Your task to perform on an android device: uninstall "Facebook" Image 0: 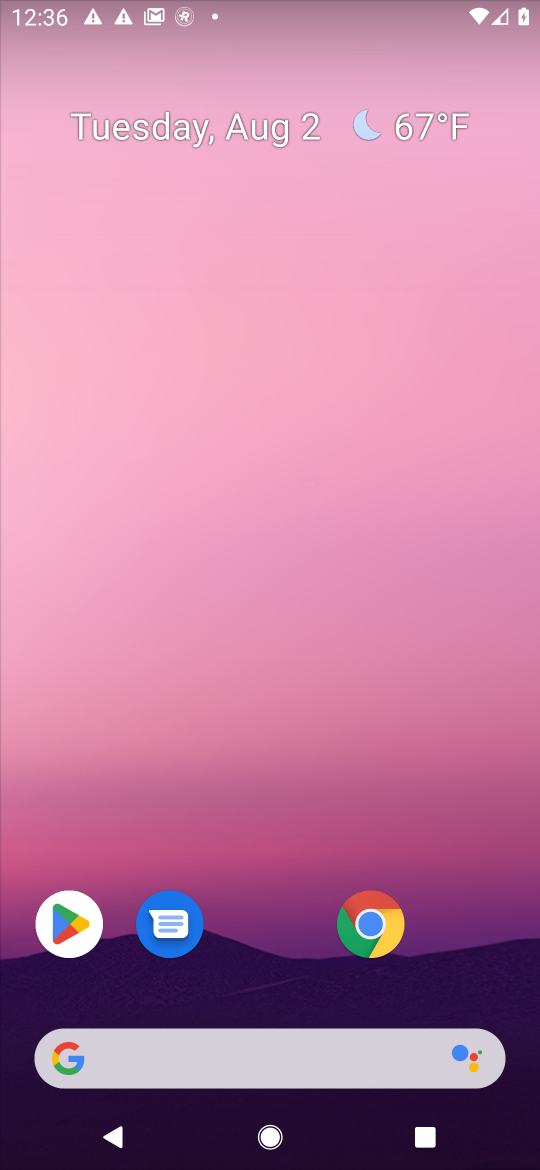
Step 0: press home button
Your task to perform on an android device: uninstall "Facebook" Image 1: 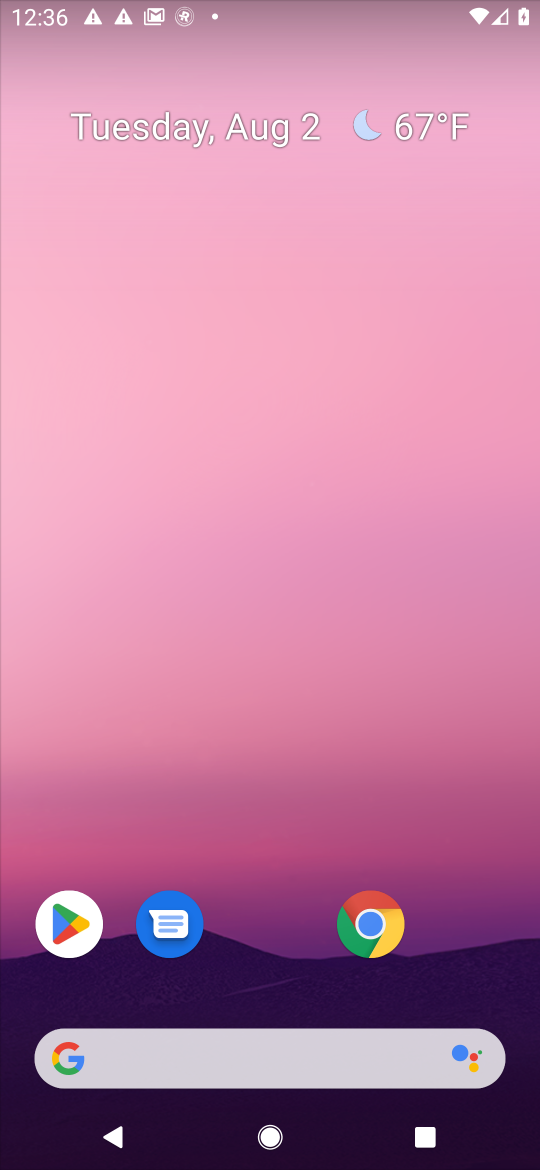
Step 1: drag from (275, 1001) to (345, 184)
Your task to perform on an android device: uninstall "Facebook" Image 2: 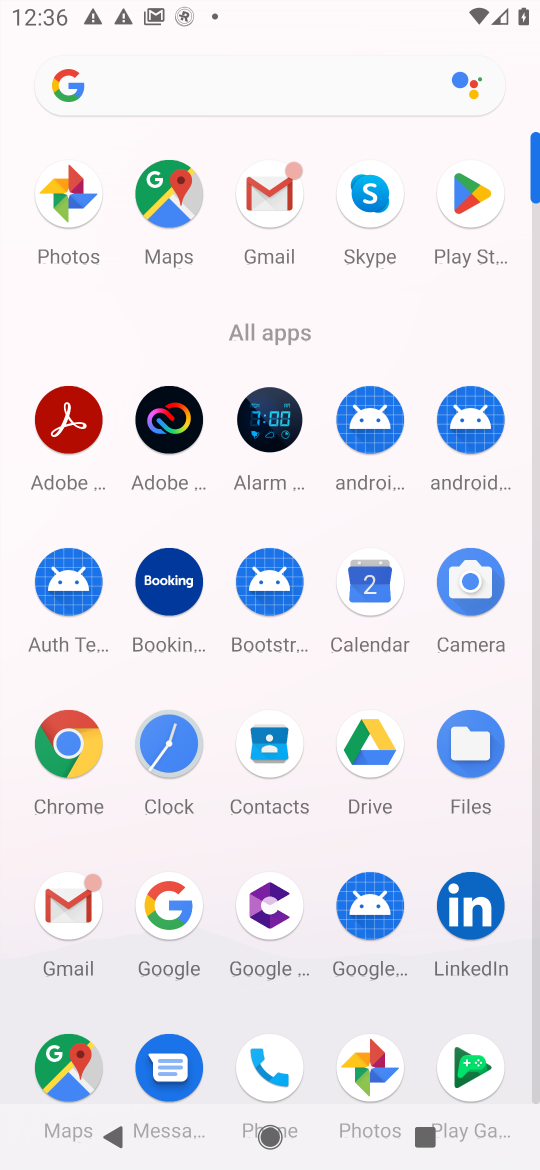
Step 2: click (462, 184)
Your task to perform on an android device: uninstall "Facebook" Image 3: 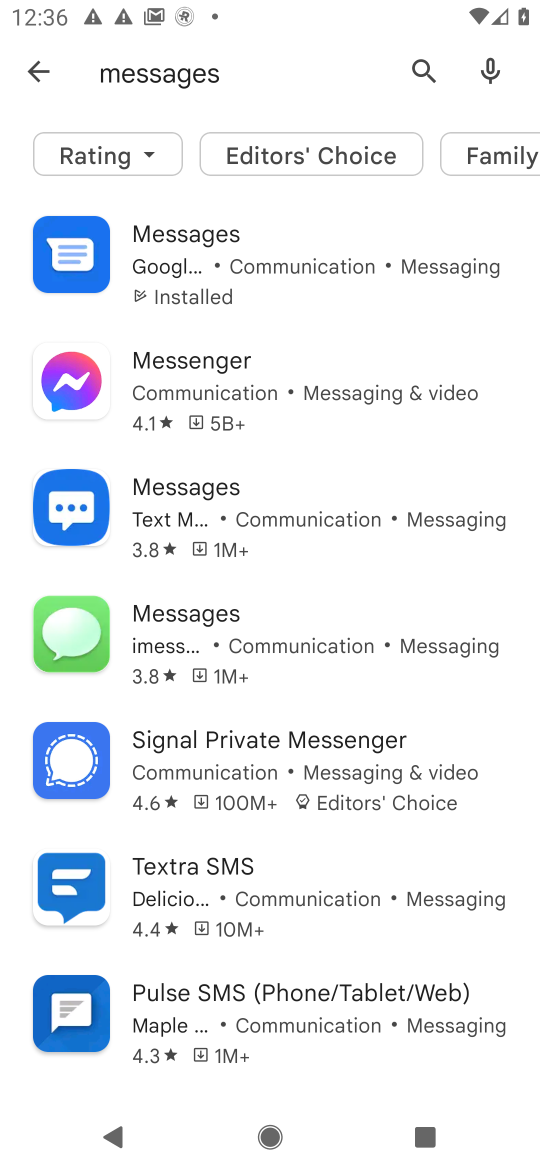
Step 3: click (419, 63)
Your task to perform on an android device: uninstall "Facebook" Image 4: 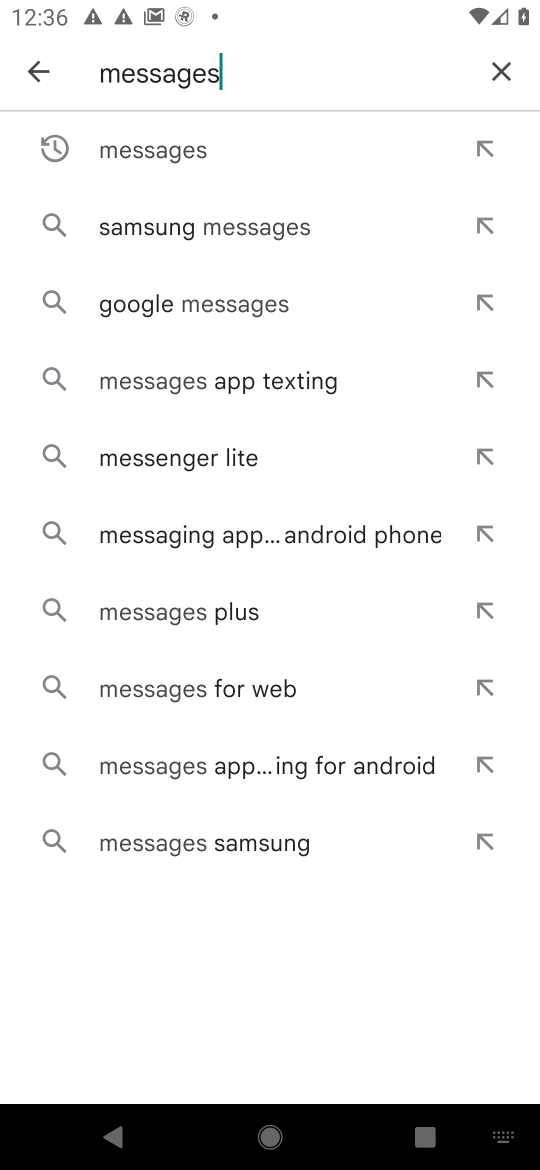
Step 4: click (498, 61)
Your task to perform on an android device: uninstall "Facebook" Image 5: 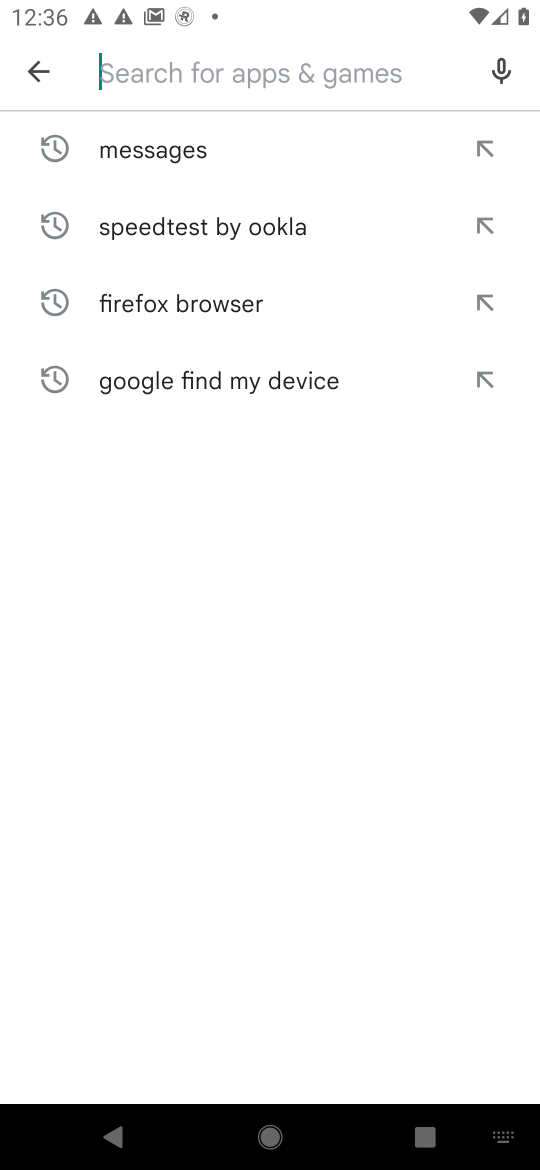
Step 5: type "Facebook"
Your task to perform on an android device: uninstall "Facebook" Image 6: 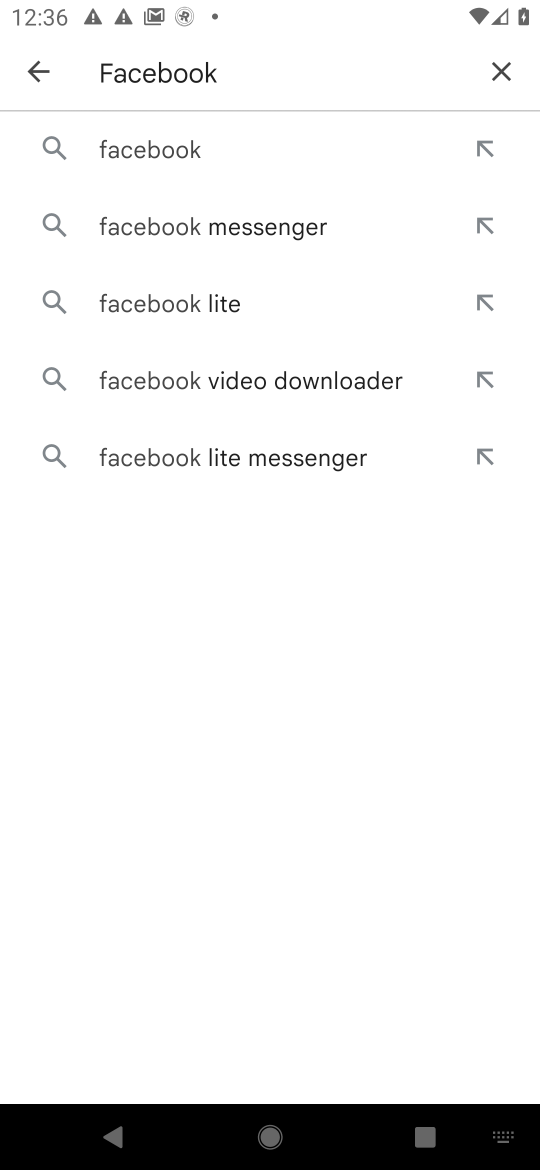
Step 6: click (203, 145)
Your task to perform on an android device: uninstall "Facebook" Image 7: 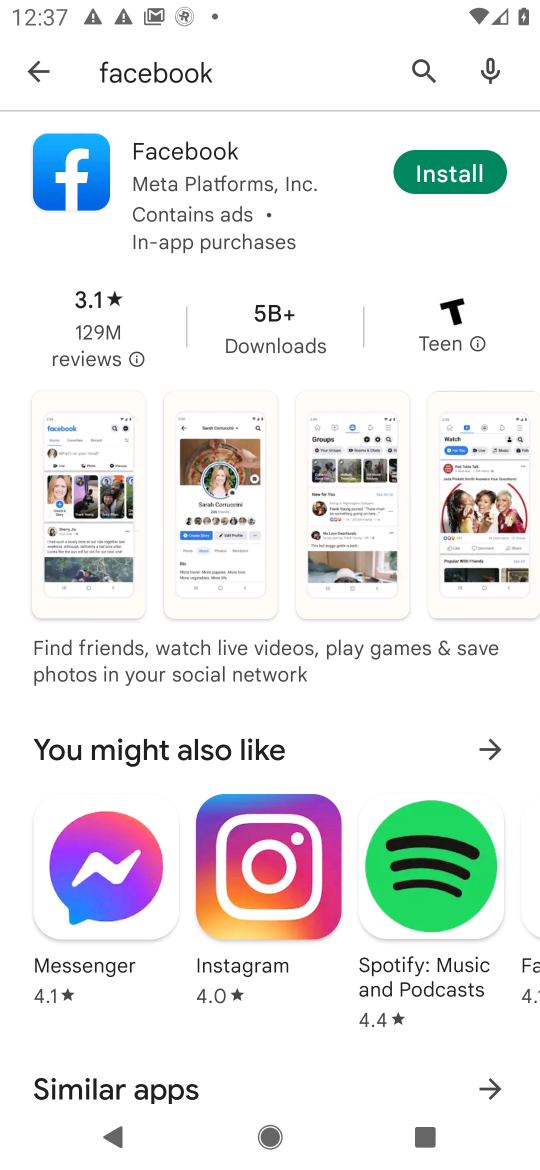
Step 7: task complete